Your task to perform on an android device: Do I have any events today? Image 0: 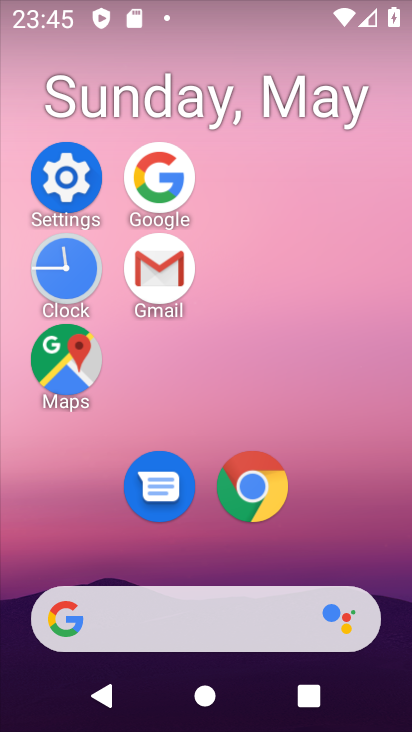
Step 0: drag from (326, 484) to (323, 101)
Your task to perform on an android device: Do I have any events today? Image 1: 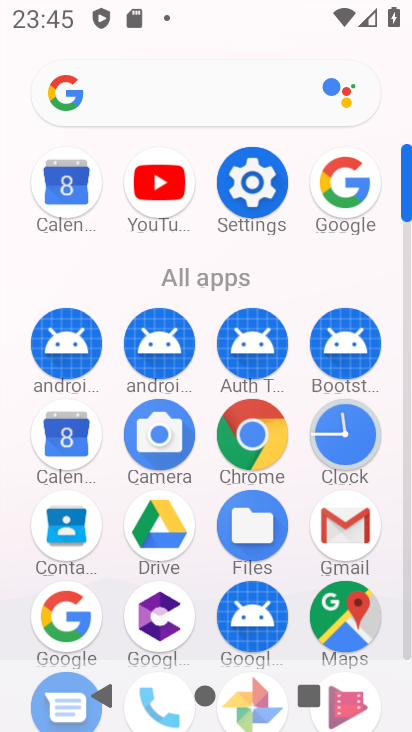
Step 1: drag from (61, 428) to (220, 193)
Your task to perform on an android device: Do I have any events today? Image 2: 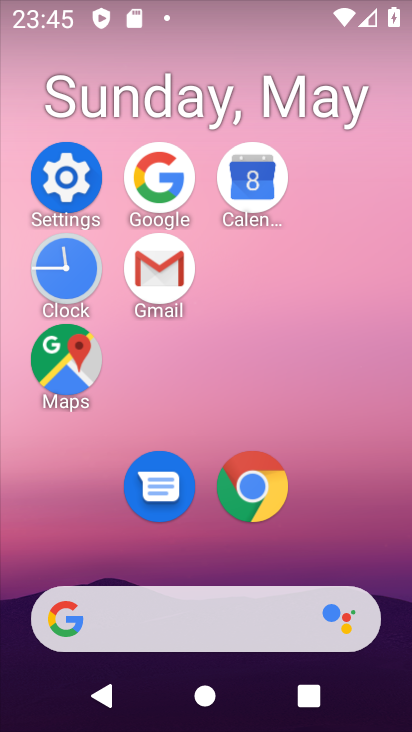
Step 2: click (228, 172)
Your task to perform on an android device: Do I have any events today? Image 3: 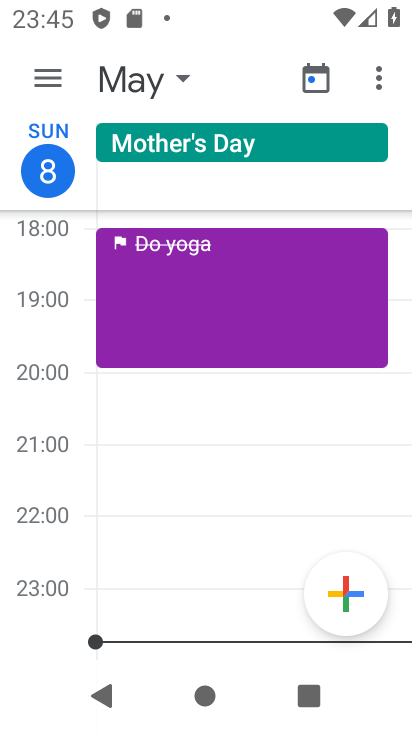
Step 3: click (65, 78)
Your task to perform on an android device: Do I have any events today? Image 4: 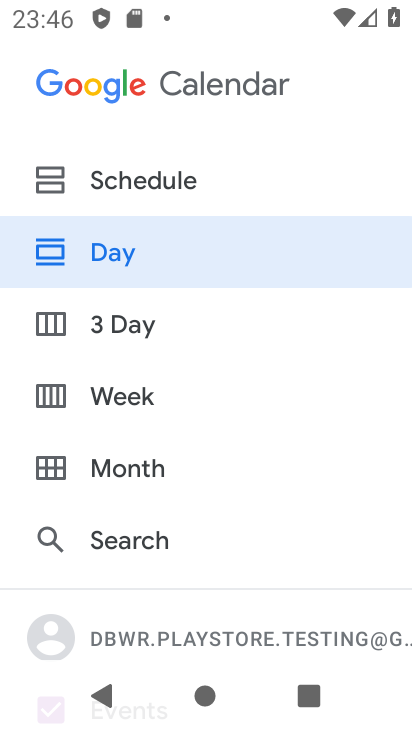
Step 4: click (168, 262)
Your task to perform on an android device: Do I have any events today? Image 5: 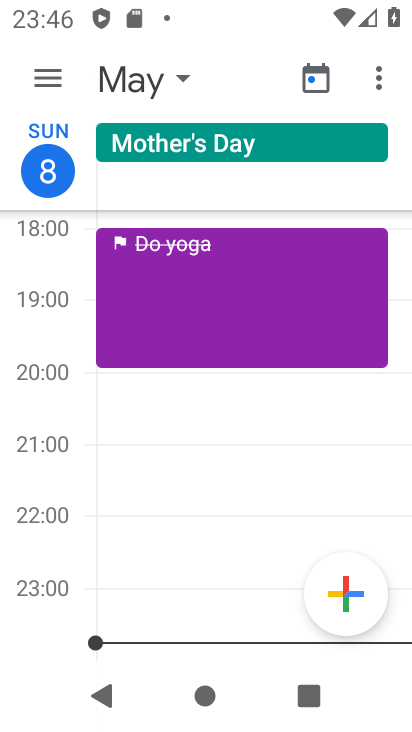
Step 5: task complete